Your task to perform on an android device: turn on wifi Image 0: 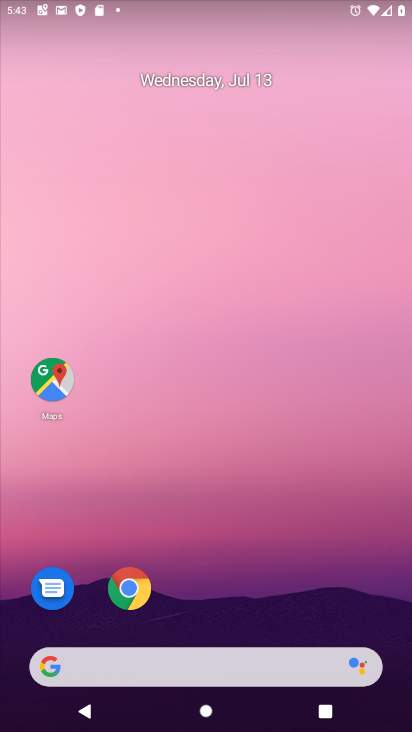
Step 0: drag from (189, 449) to (196, 204)
Your task to perform on an android device: turn on wifi Image 1: 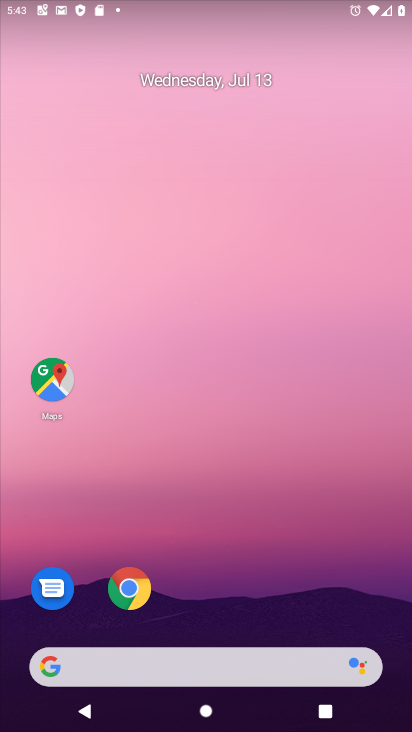
Step 1: drag from (220, 375) to (226, 154)
Your task to perform on an android device: turn on wifi Image 2: 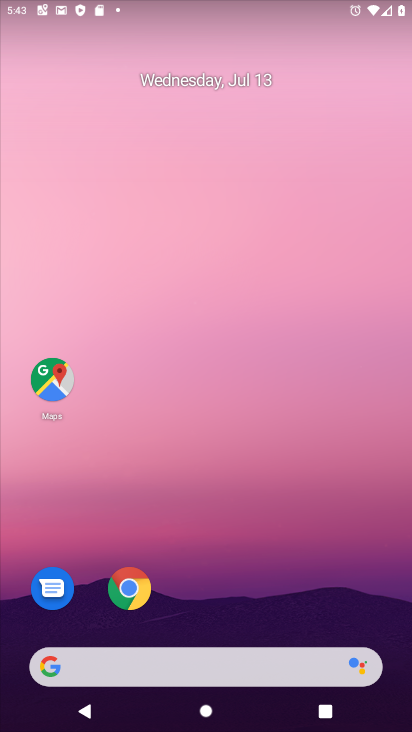
Step 2: drag from (194, 373) to (199, 125)
Your task to perform on an android device: turn on wifi Image 3: 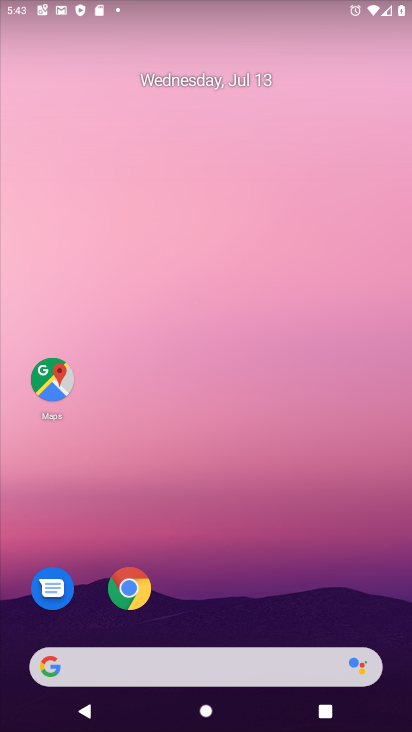
Step 3: drag from (219, 416) to (251, 97)
Your task to perform on an android device: turn on wifi Image 4: 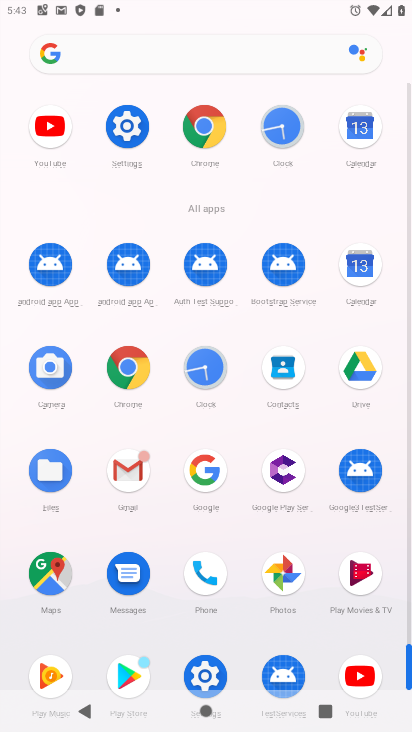
Step 4: click (127, 134)
Your task to perform on an android device: turn on wifi Image 5: 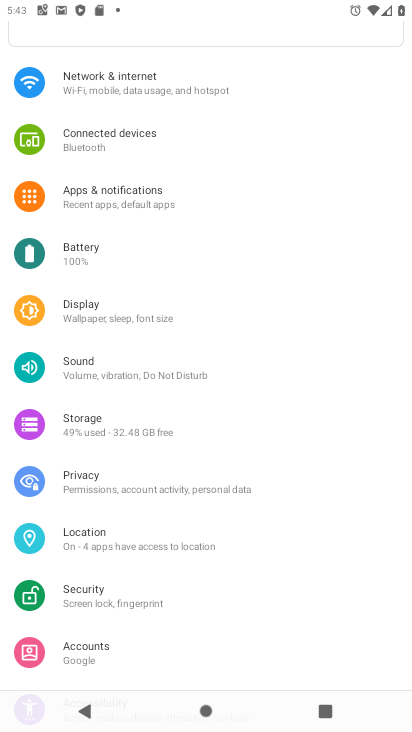
Step 5: click (119, 88)
Your task to perform on an android device: turn on wifi Image 6: 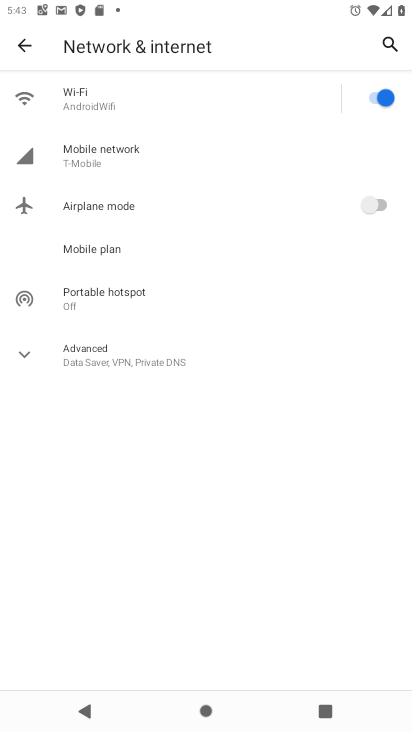
Step 6: task complete